Your task to perform on an android device: What's the weather? Image 0: 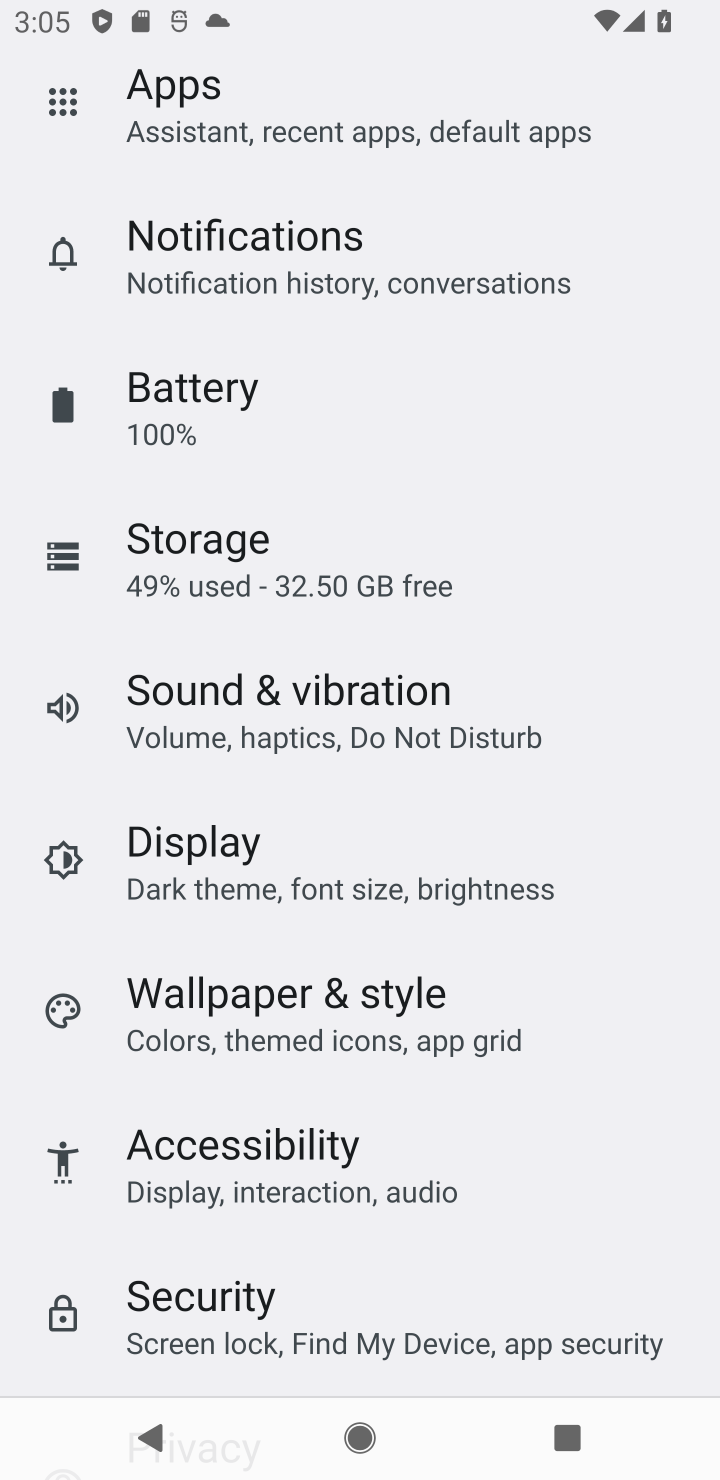
Step 0: press home button
Your task to perform on an android device: What's the weather? Image 1: 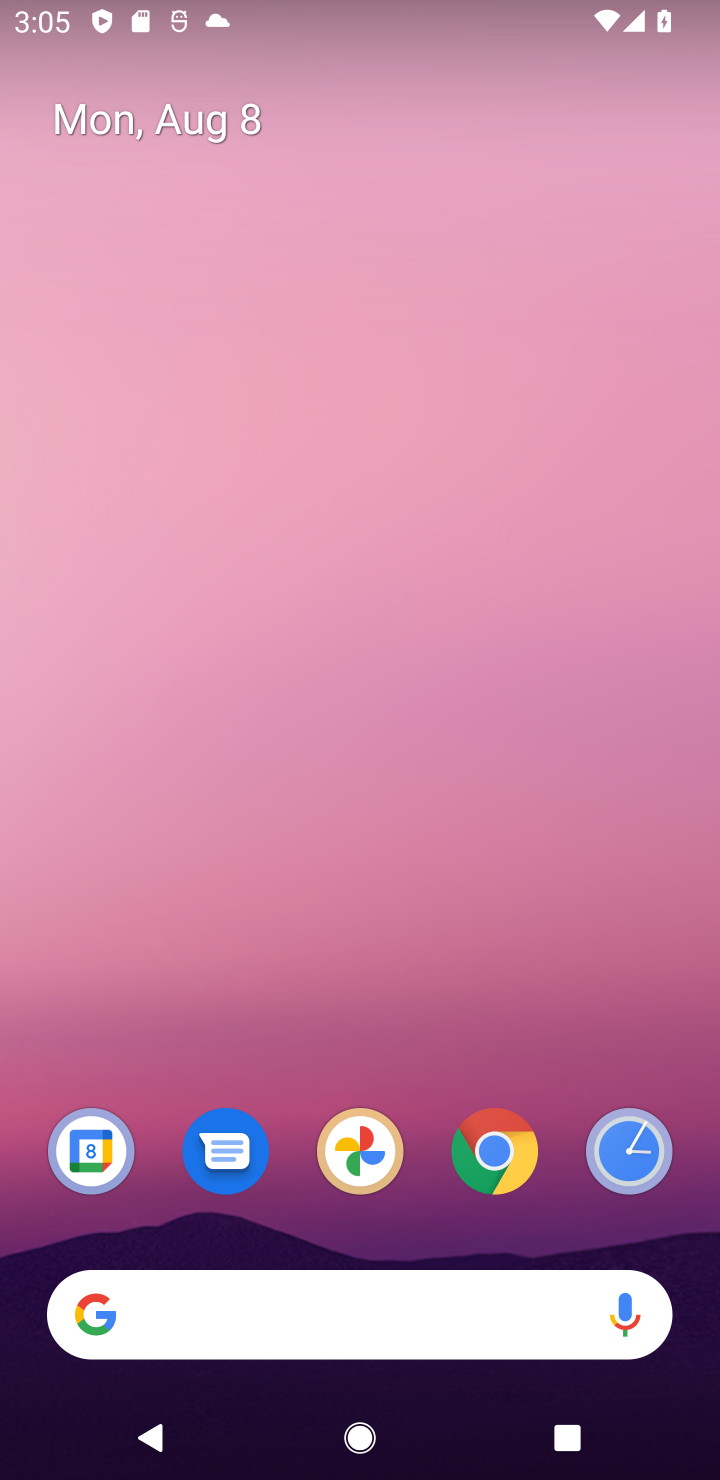
Step 1: drag from (377, 1005) to (262, 101)
Your task to perform on an android device: What's the weather? Image 2: 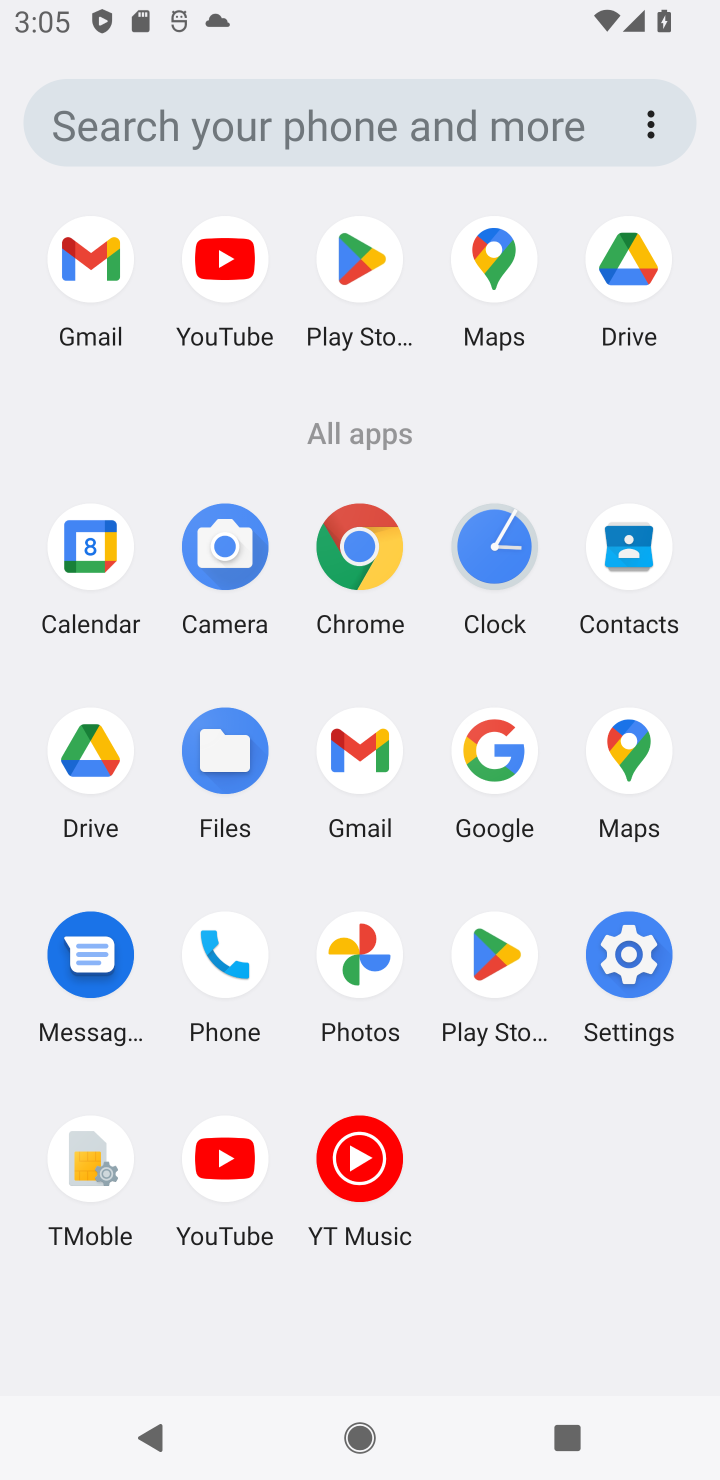
Step 2: click (463, 785)
Your task to perform on an android device: What's the weather? Image 3: 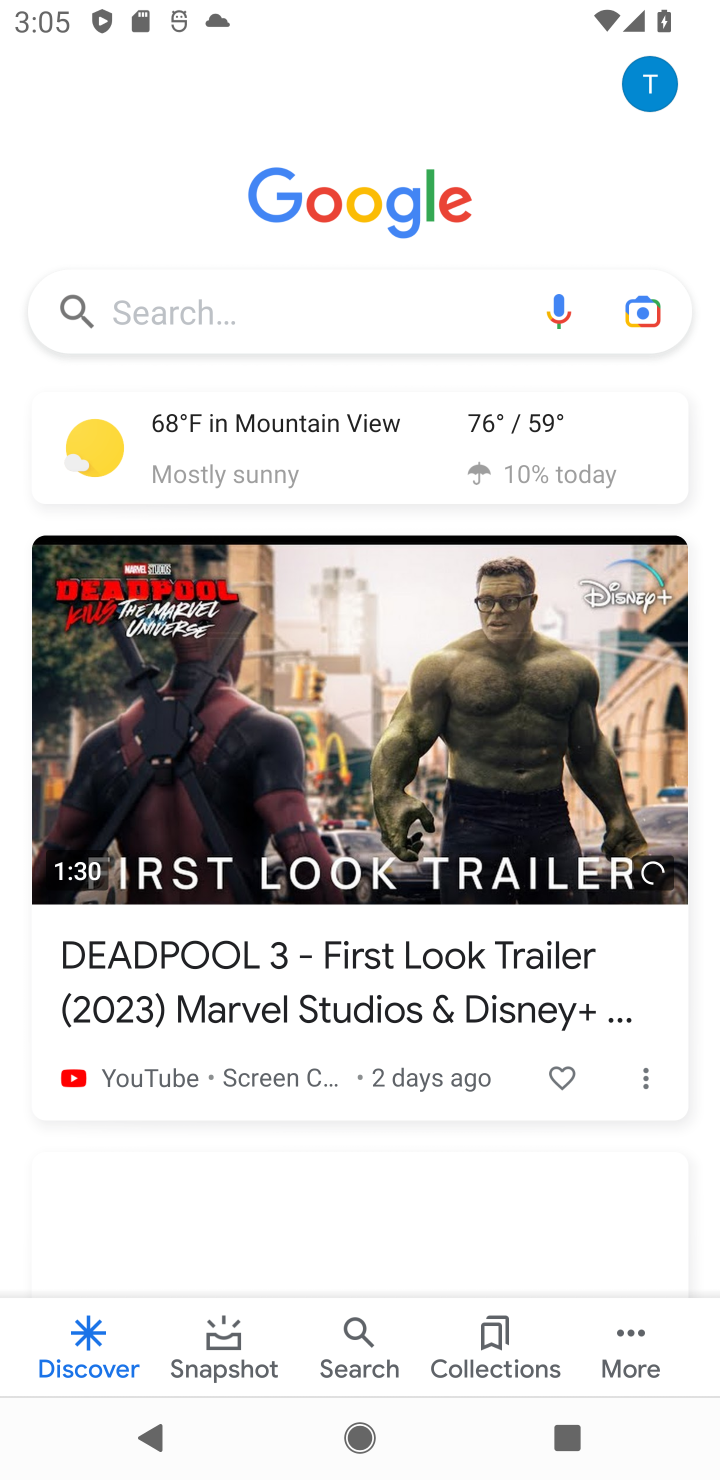
Step 3: click (189, 438)
Your task to perform on an android device: What's the weather? Image 4: 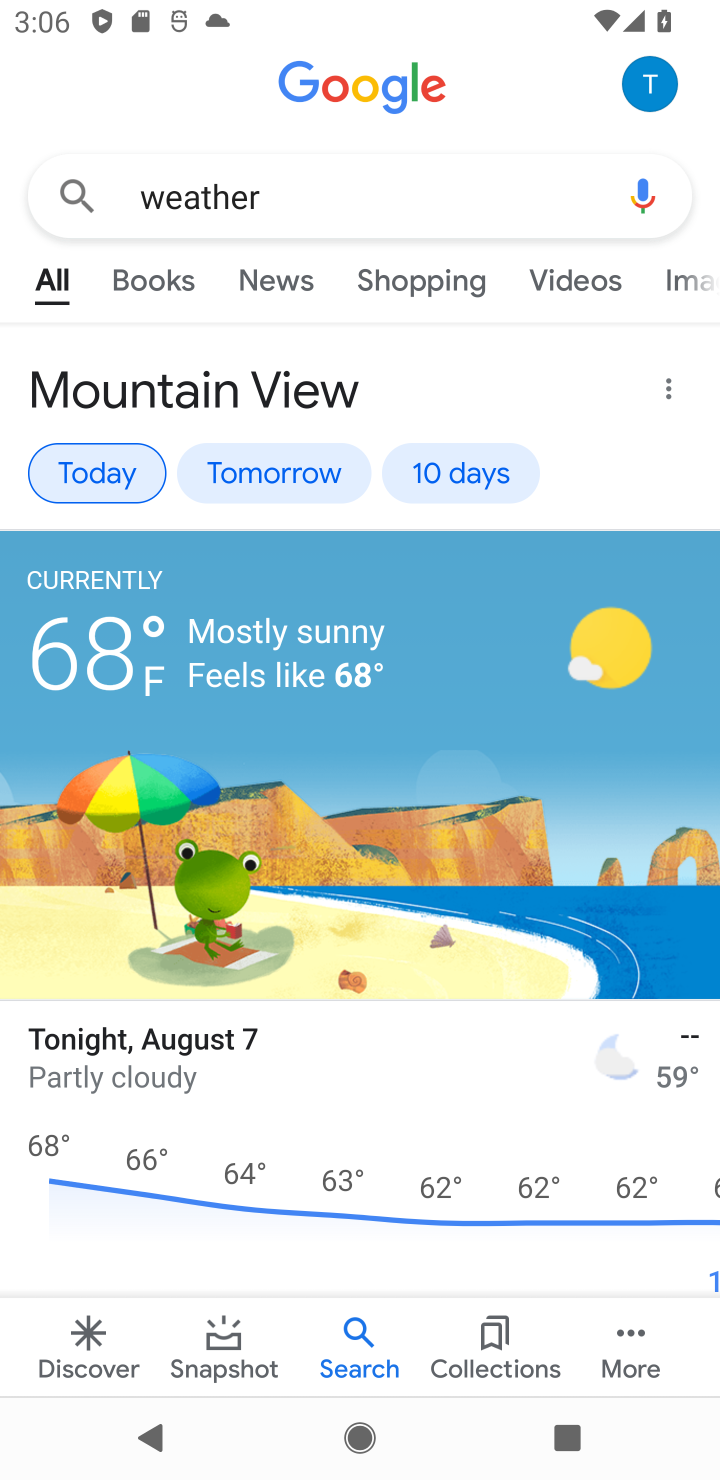
Step 4: task complete